Your task to perform on an android device: Search for seafood restaurants on Google Maps Image 0: 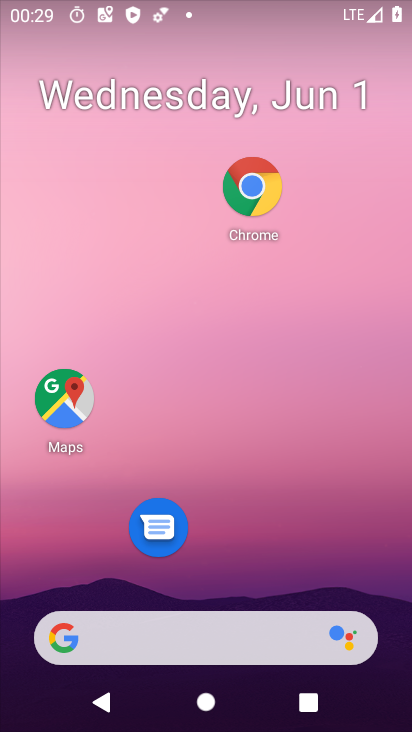
Step 0: click (57, 405)
Your task to perform on an android device: Search for seafood restaurants on Google Maps Image 1: 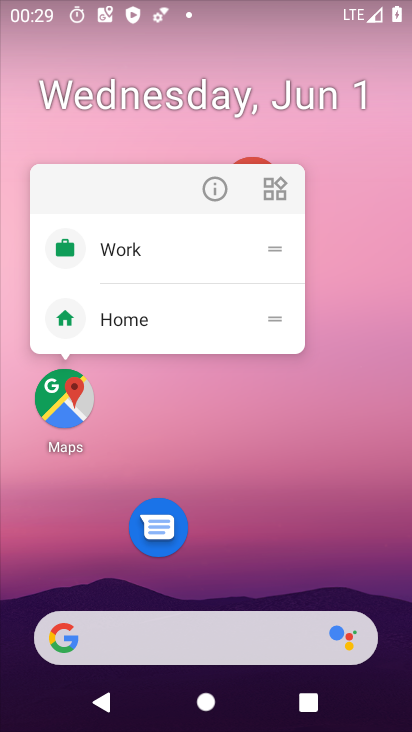
Step 1: click (225, 185)
Your task to perform on an android device: Search for seafood restaurants on Google Maps Image 2: 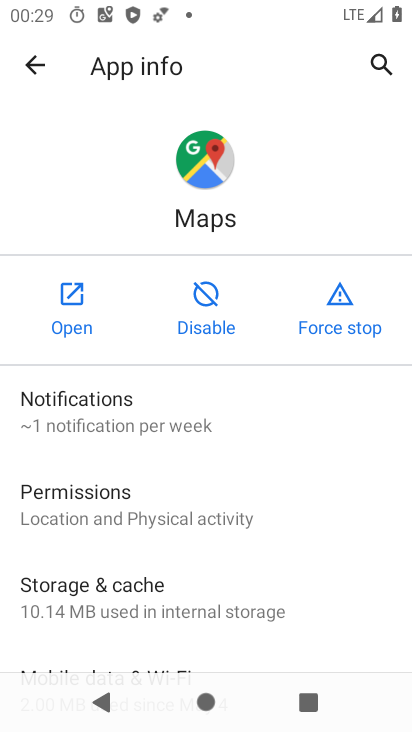
Step 2: click (79, 289)
Your task to perform on an android device: Search for seafood restaurants on Google Maps Image 3: 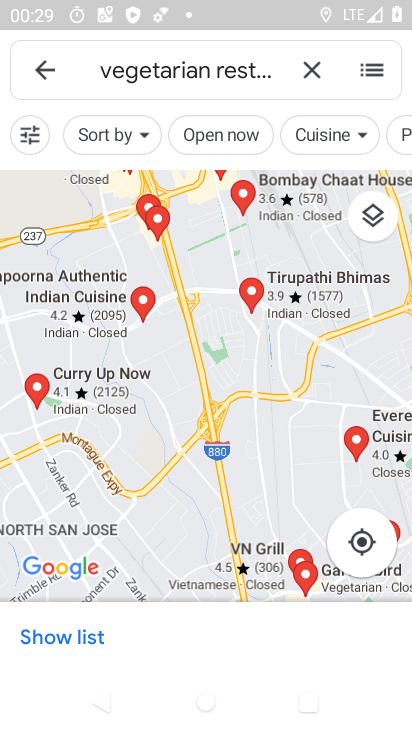
Step 3: click (303, 75)
Your task to perform on an android device: Search for seafood restaurants on Google Maps Image 4: 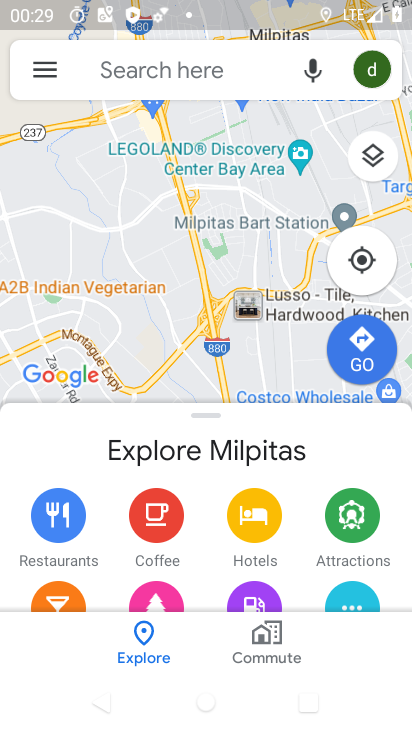
Step 4: click (154, 70)
Your task to perform on an android device: Search for seafood restaurants on Google Maps Image 5: 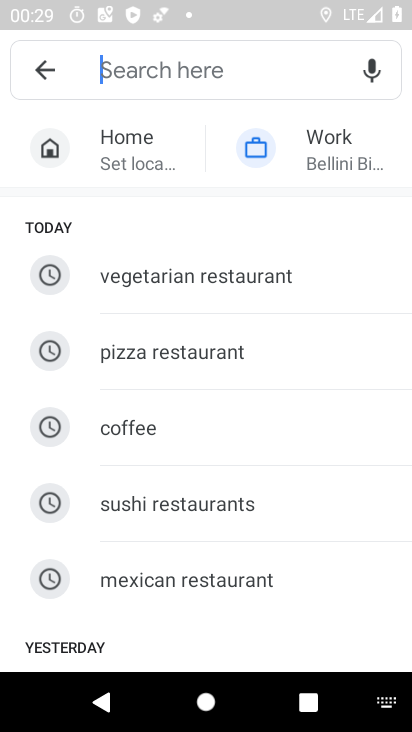
Step 5: drag from (162, 548) to (215, 167)
Your task to perform on an android device: Search for seafood restaurants on Google Maps Image 6: 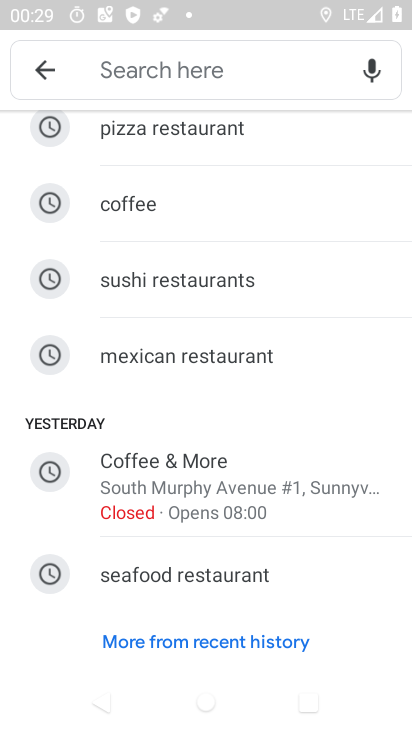
Step 6: click (198, 564)
Your task to perform on an android device: Search for seafood restaurants on Google Maps Image 7: 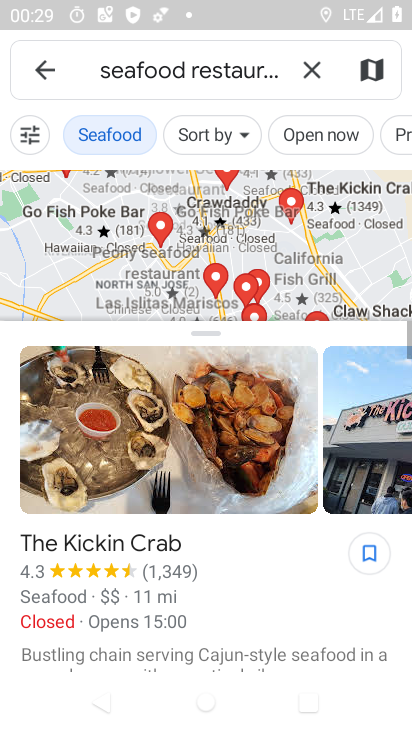
Step 7: task complete